Your task to perform on an android device: turn pop-ups off in chrome Image 0: 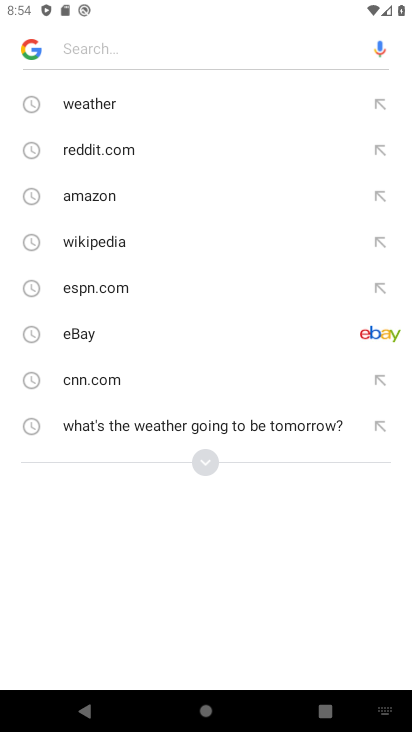
Step 0: press back button
Your task to perform on an android device: turn pop-ups off in chrome Image 1: 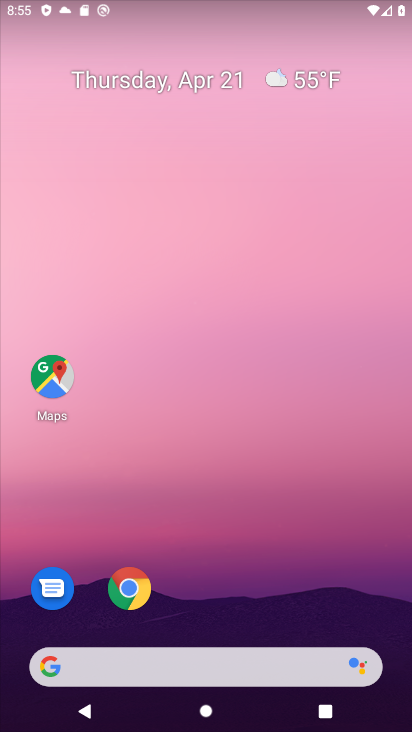
Step 1: drag from (247, 190) to (223, 6)
Your task to perform on an android device: turn pop-ups off in chrome Image 2: 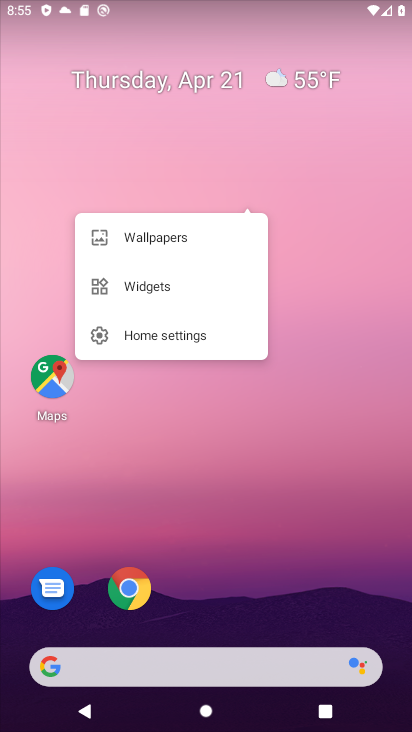
Step 2: drag from (308, 520) to (296, 83)
Your task to perform on an android device: turn pop-ups off in chrome Image 3: 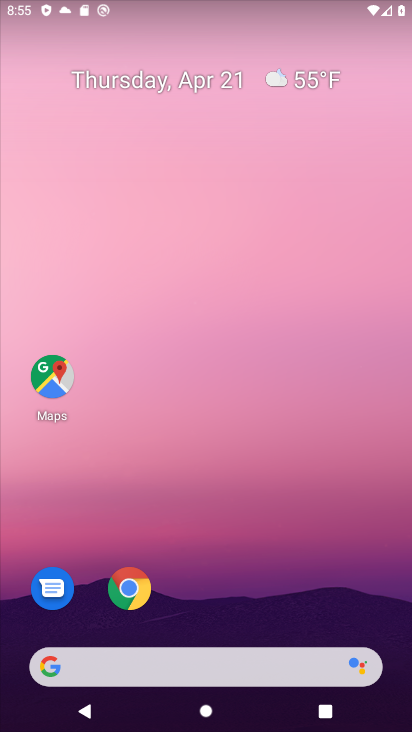
Step 3: drag from (210, 583) to (194, 26)
Your task to perform on an android device: turn pop-ups off in chrome Image 4: 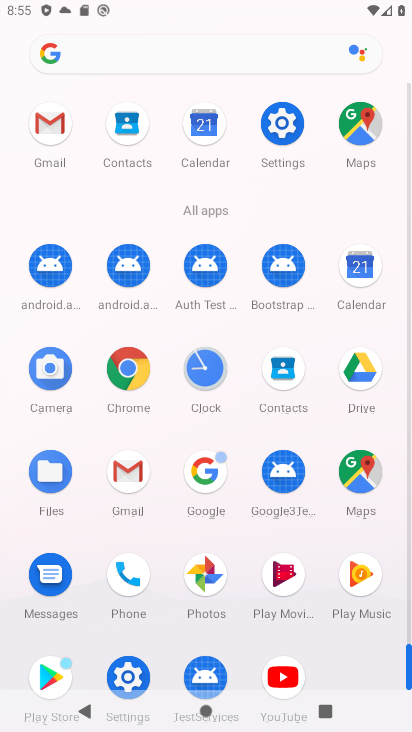
Step 4: click (128, 364)
Your task to perform on an android device: turn pop-ups off in chrome Image 5: 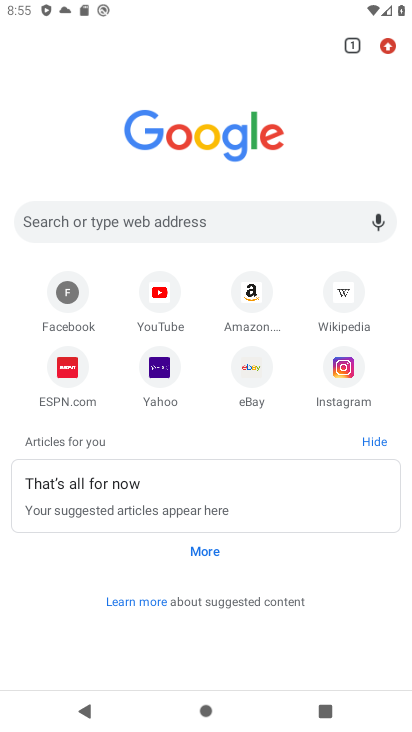
Step 5: drag from (385, 48) to (262, 437)
Your task to perform on an android device: turn pop-ups off in chrome Image 6: 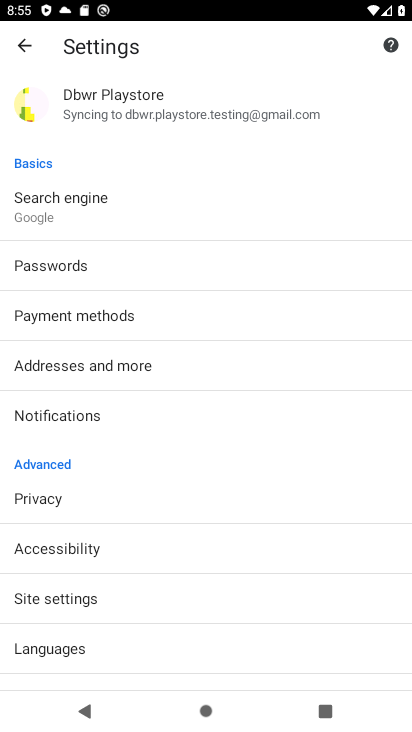
Step 6: drag from (276, 519) to (283, 187)
Your task to perform on an android device: turn pop-ups off in chrome Image 7: 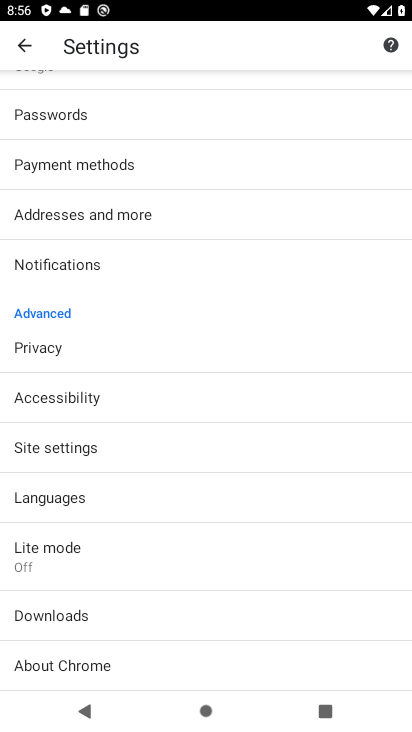
Step 7: drag from (209, 530) to (205, 201)
Your task to perform on an android device: turn pop-ups off in chrome Image 8: 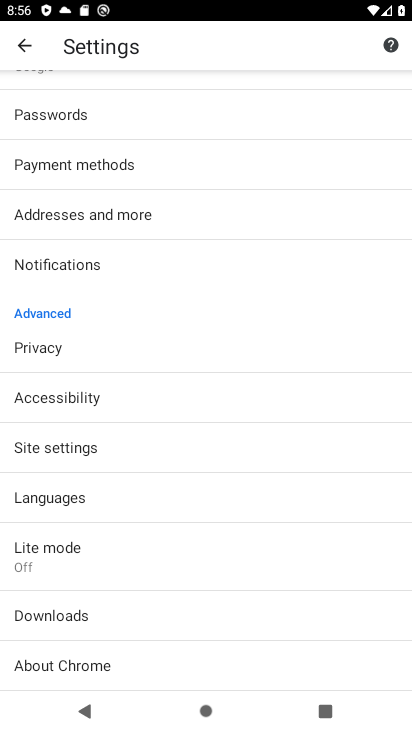
Step 8: click (67, 435)
Your task to perform on an android device: turn pop-ups off in chrome Image 9: 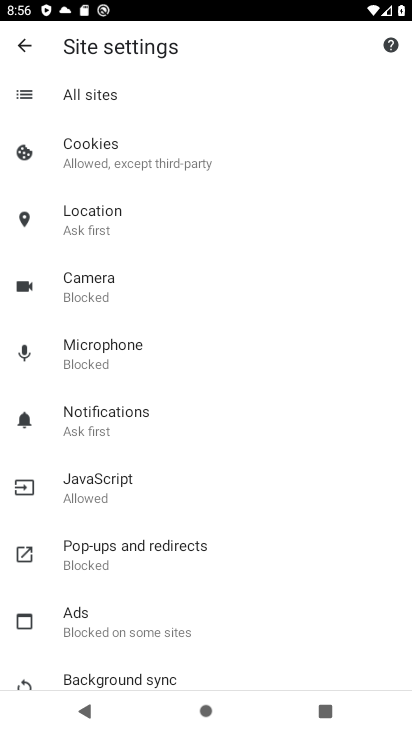
Step 9: click (144, 551)
Your task to perform on an android device: turn pop-ups off in chrome Image 10: 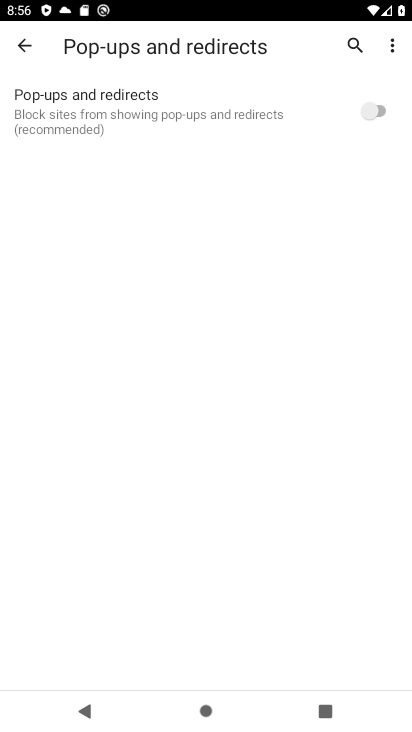
Step 10: task complete